Your task to perform on an android device: toggle data saver in the chrome app Image 0: 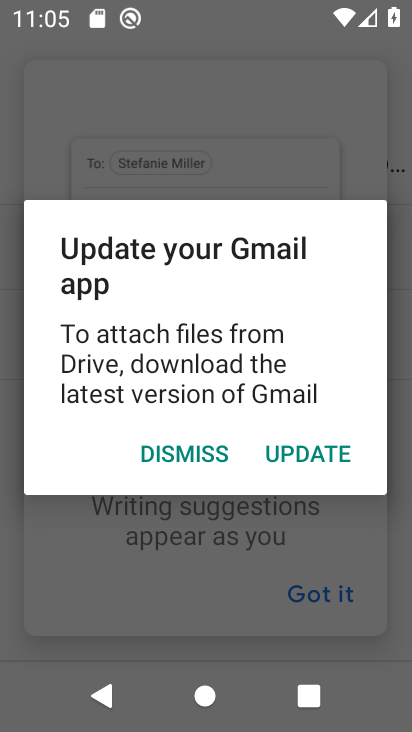
Step 0: press home button
Your task to perform on an android device: toggle data saver in the chrome app Image 1: 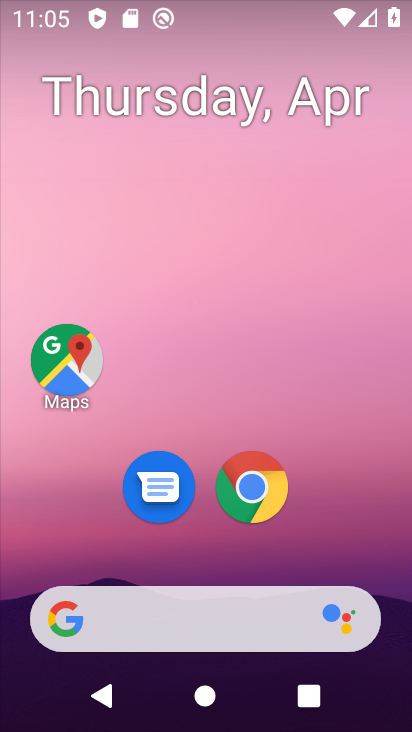
Step 1: click (341, 198)
Your task to perform on an android device: toggle data saver in the chrome app Image 2: 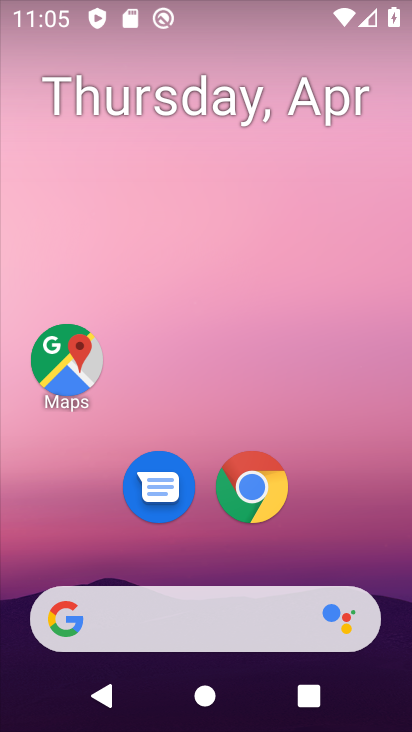
Step 2: drag from (365, 344) to (379, 150)
Your task to perform on an android device: toggle data saver in the chrome app Image 3: 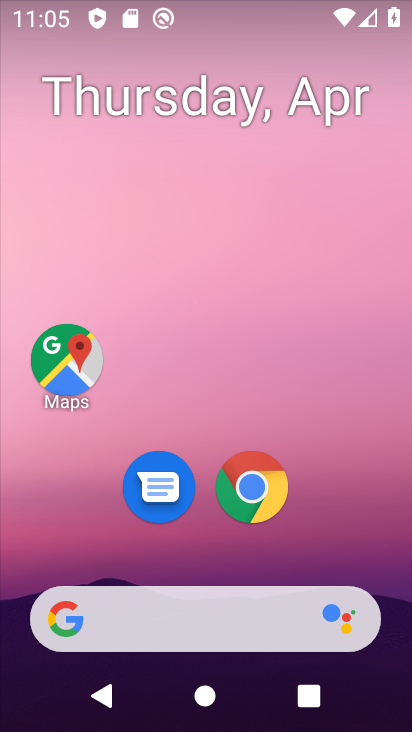
Step 3: drag from (312, 547) to (332, 117)
Your task to perform on an android device: toggle data saver in the chrome app Image 4: 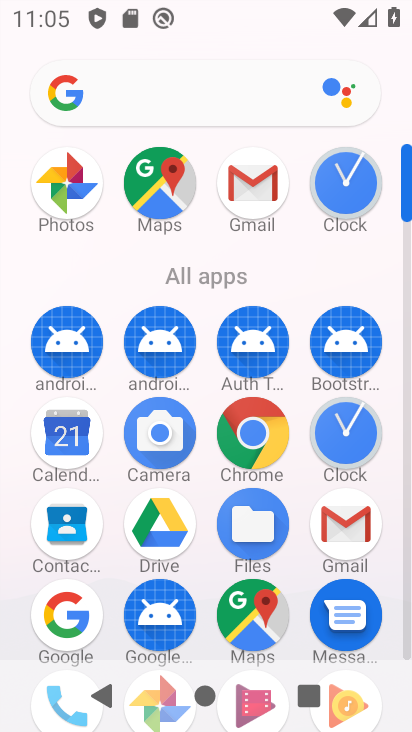
Step 4: click (262, 428)
Your task to perform on an android device: toggle data saver in the chrome app Image 5: 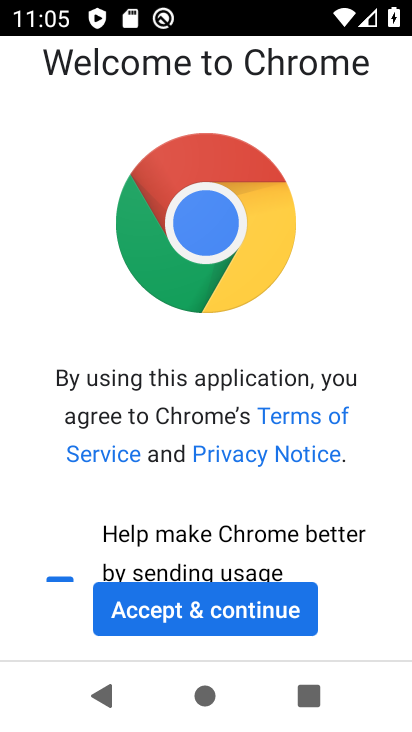
Step 5: click (176, 603)
Your task to perform on an android device: toggle data saver in the chrome app Image 6: 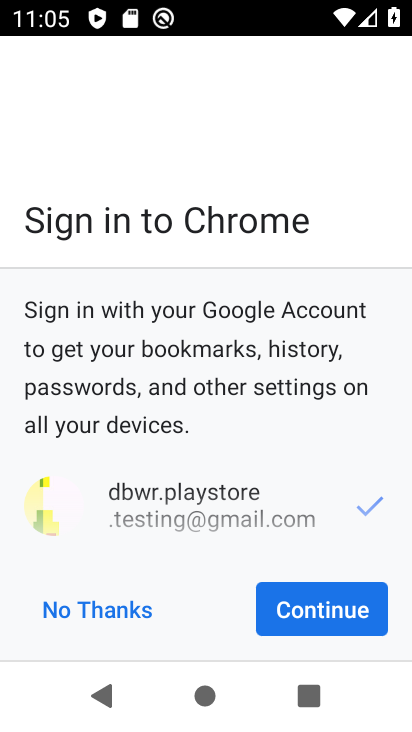
Step 6: click (307, 587)
Your task to perform on an android device: toggle data saver in the chrome app Image 7: 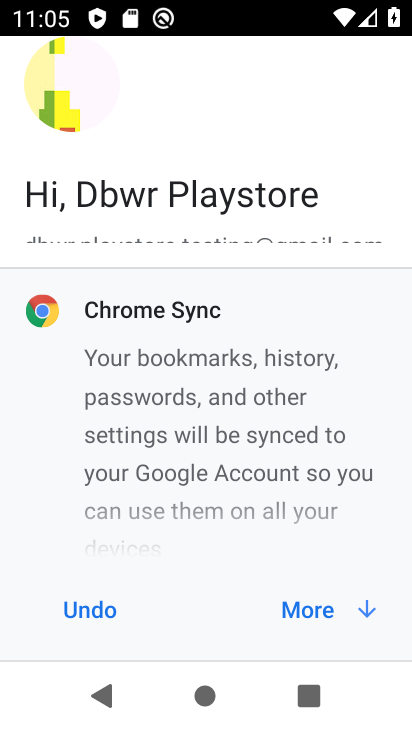
Step 7: click (307, 602)
Your task to perform on an android device: toggle data saver in the chrome app Image 8: 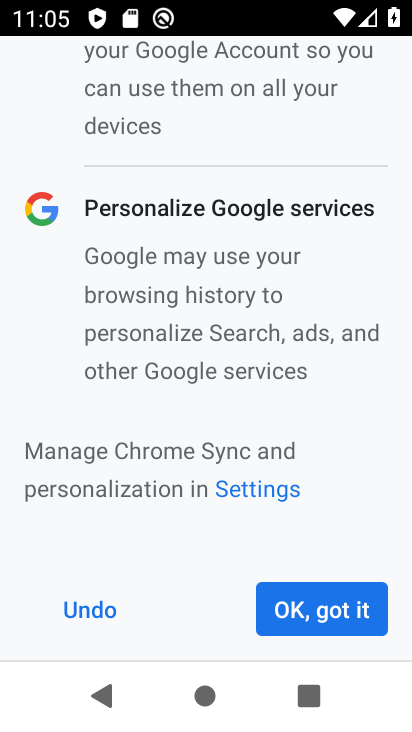
Step 8: click (307, 602)
Your task to perform on an android device: toggle data saver in the chrome app Image 9: 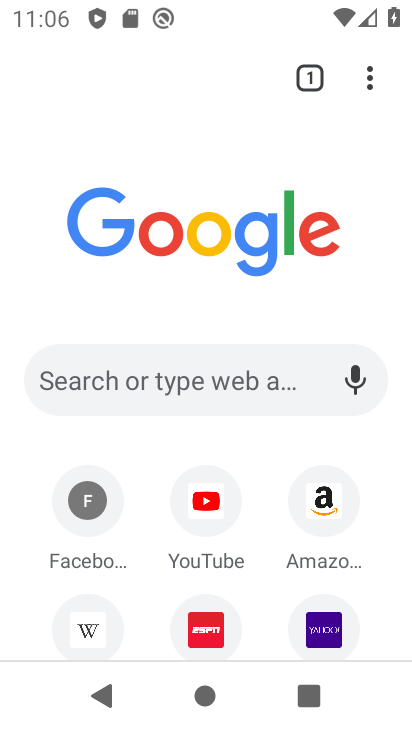
Step 9: click (371, 79)
Your task to perform on an android device: toggle data saver in the chrome app Image 10: 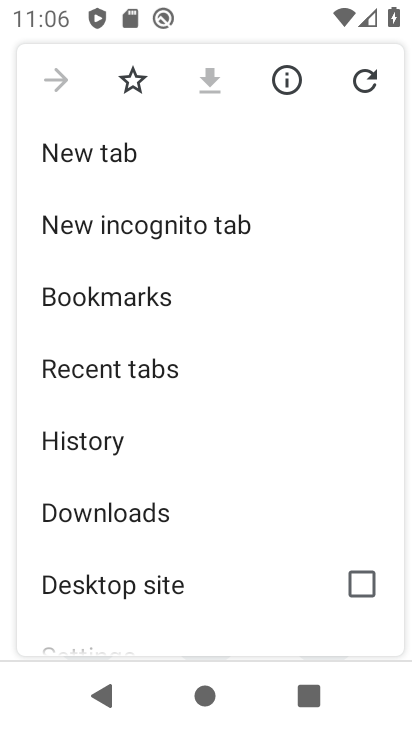
Step 10: drag from (134, 555) to (275, 163)
Your task to perform on an android device: toggle data saver in the chrome app Image 11: 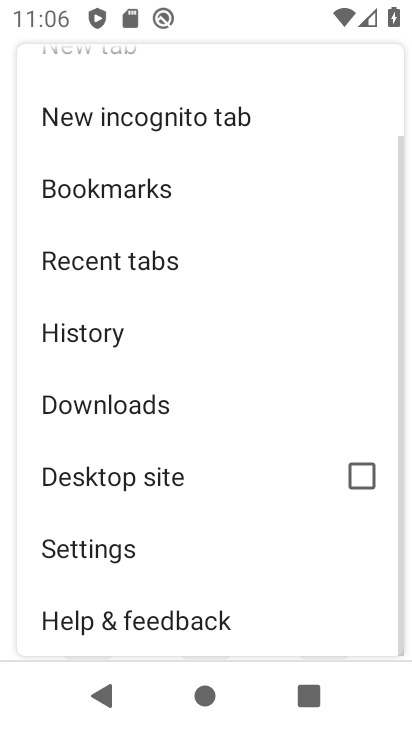
Step 11: click (125, 544)
Your task to perform on an android device: toggle data saver in the chrome app Image 12: 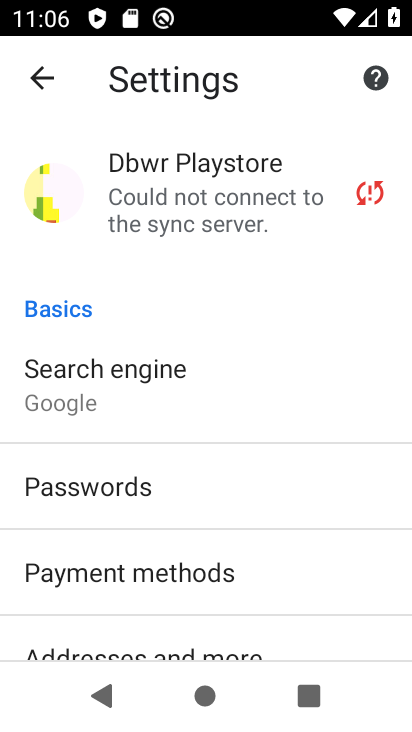
Step 12: drag from (232, 570) to (285, 137)
Your task to perform on an android device: toggle data saver in the chrome app Image 13: 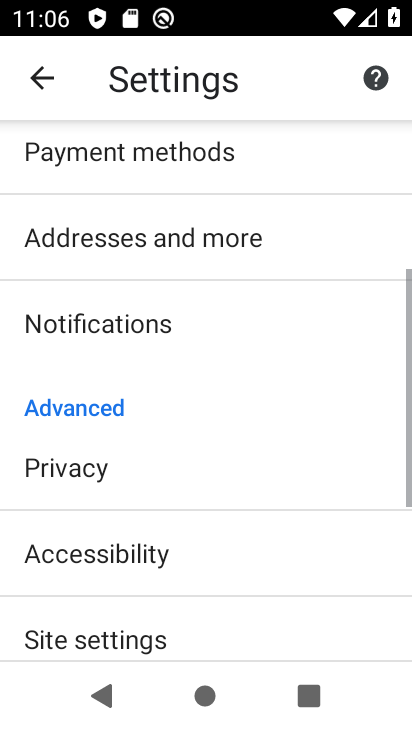
Step 13: drag from (153, 596) to (266, 199)
Your task to perform on an android device: toggle data saver in the chrome app Image 14: 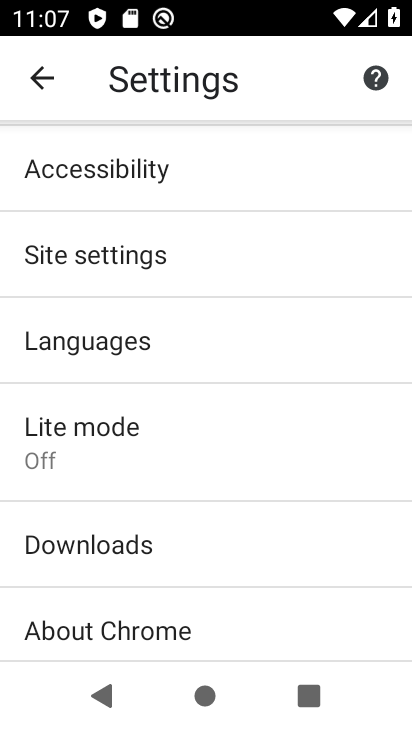
Step 14: drag from (143, 348) to (185, 437)
Your task to perform on an android device: toggle data saver in the chrome app Image 15: 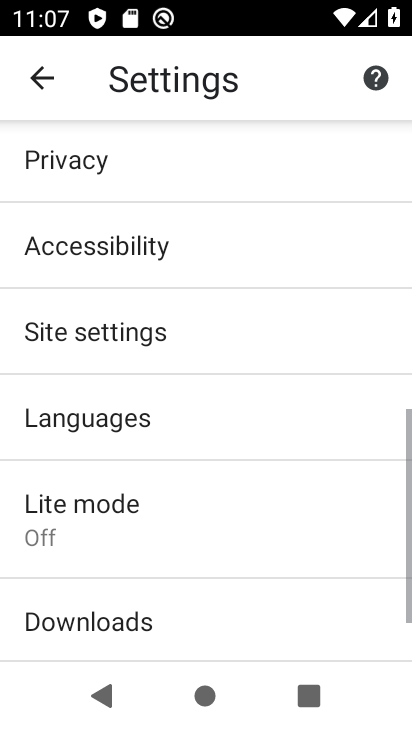
Step 15: click (146, 486)
Your task to perform on an android device: toggle data saver in the chrome app Image 16: 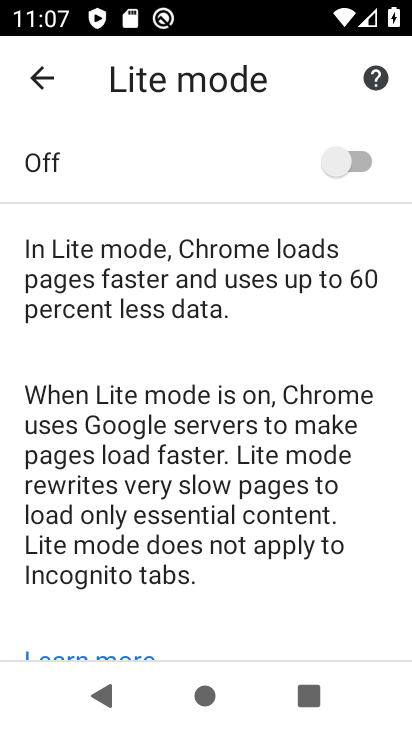
Step 16: click (350, 156)
Your task to perform on an android device: toggle data saver in the chrome app Image 17: 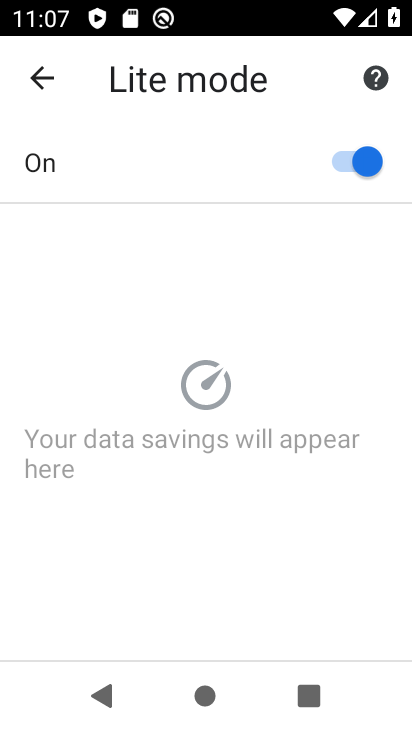
Step 17: task complete